Your task to perform on an android device: Open ESPN.com Image 0: 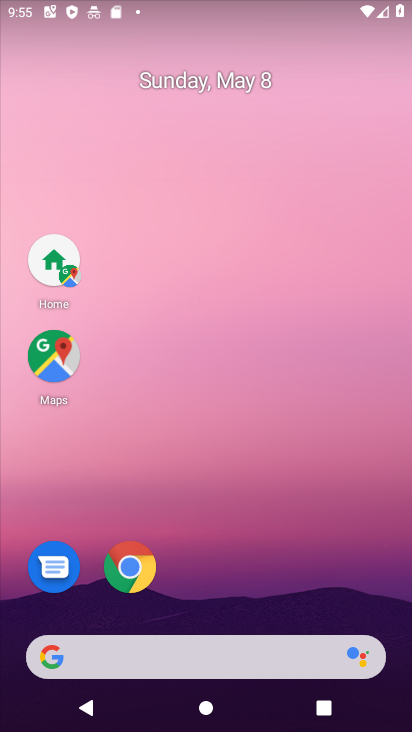
Step 0: drag from (346, 574) to (120, 71)
Your task to perform on an android device: Open ESPN.com Image 1: 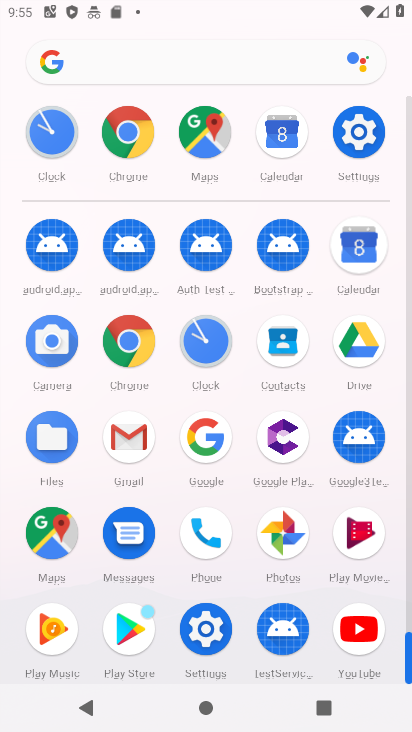
Step 1: drag from (240, 496) to (140, 29)
Your task to perform on an android device: Open ESPN.com Image 2: 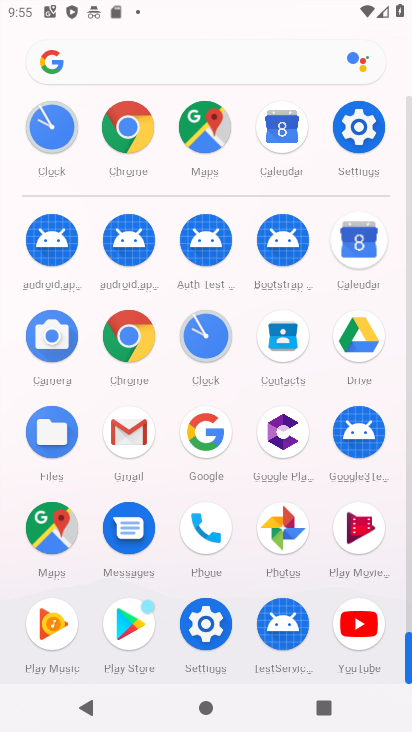
Step 2: click (126, 128)
Your task to perform on an android device: Open ESPN.com Image 3: 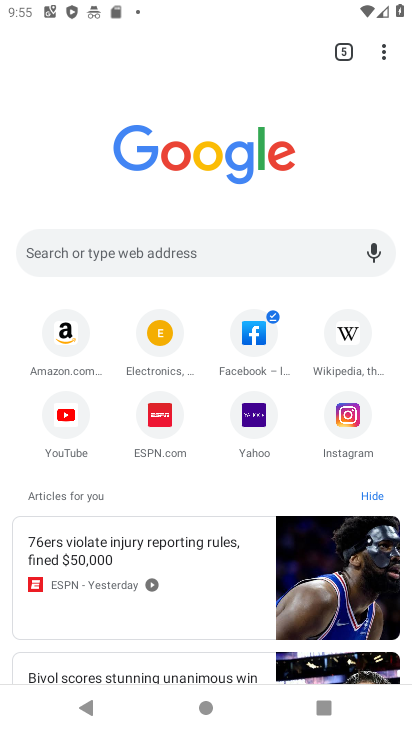
Step 3: click (148, 421)
Your task to perform on an android device: Open ESPN.com Image 4: 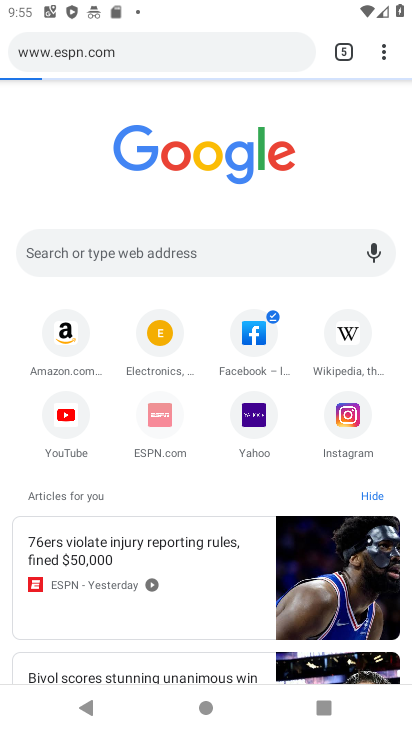
Step 4: click (165, 399)
Your task to perform on an android device: Open ESPN.com Image 5: 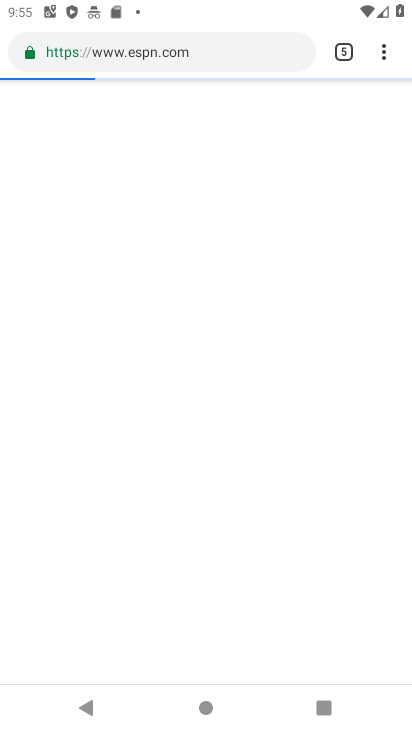
Step 5: click (169, 420)
Your task to perform on an android device: Open ESPN.com Image 6: 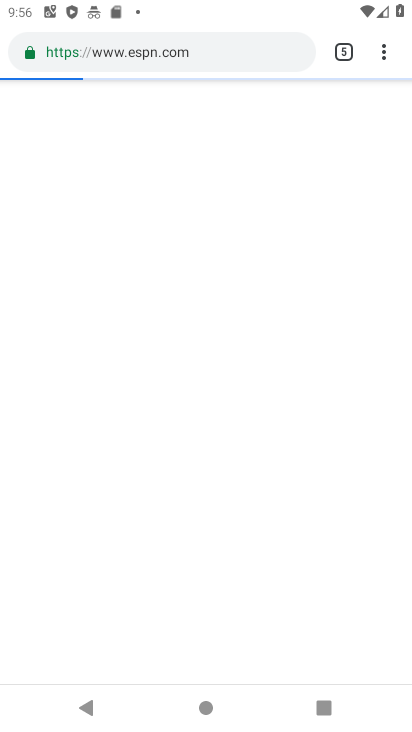
Step 6: click (163, 408)
Your task to perform on an android device: Open ESPN.com Image 7: 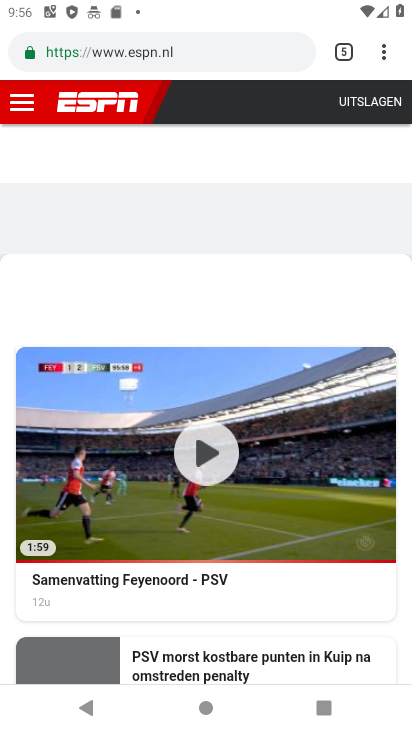
Step 7: task complete